Your task to perform on an android device: open app "Google Home" (install if not already installed) Image 0: 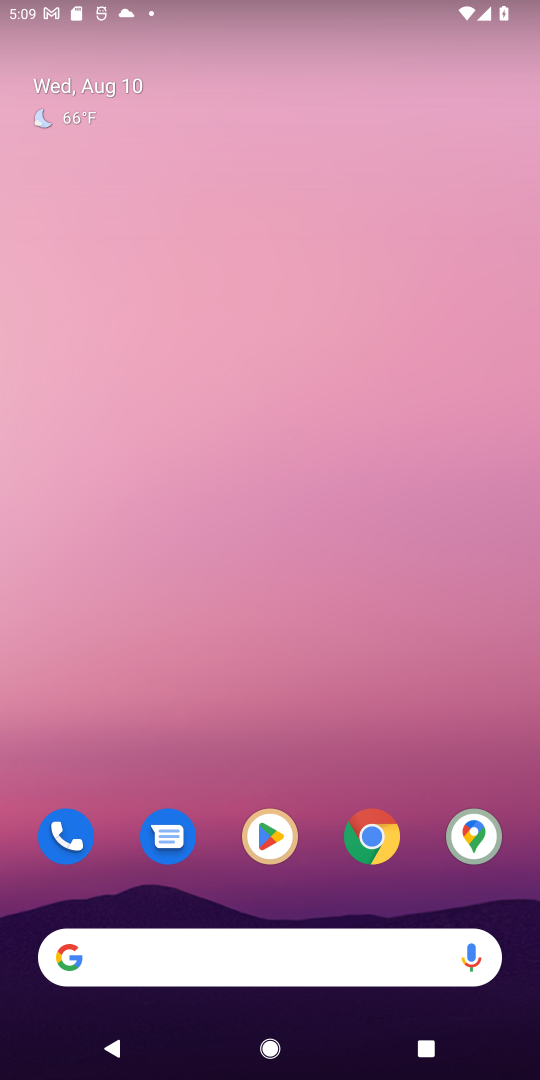
Step 0: drag from (248, 954) to (237, 351)
Your task to perform on an android device: open app "Google Home" (install if not already installed) Image 1: 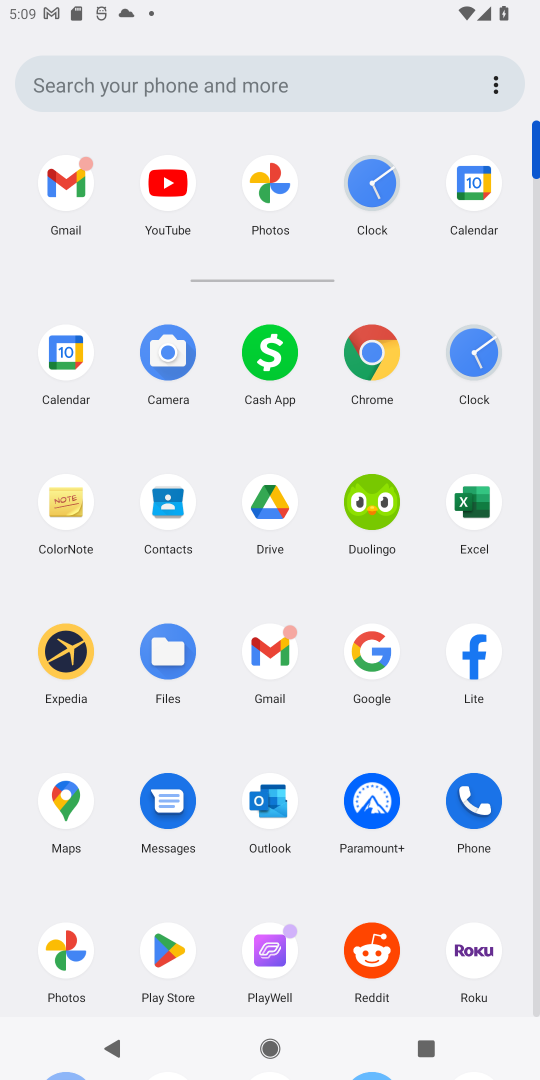
Step 1: click (164, 946)
Your task to perform on an android device: open app "Google Home" (install if not already installed) Image 2: 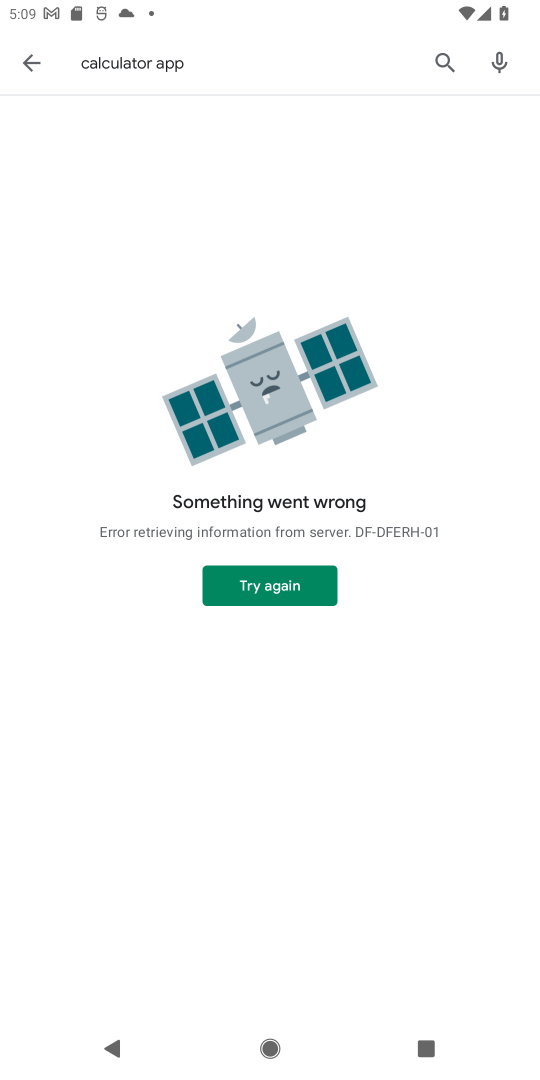
Step 2: click (20, 57)
Your task to perform on an android device: open app "Google Home" (install if not already installed) Image 3: 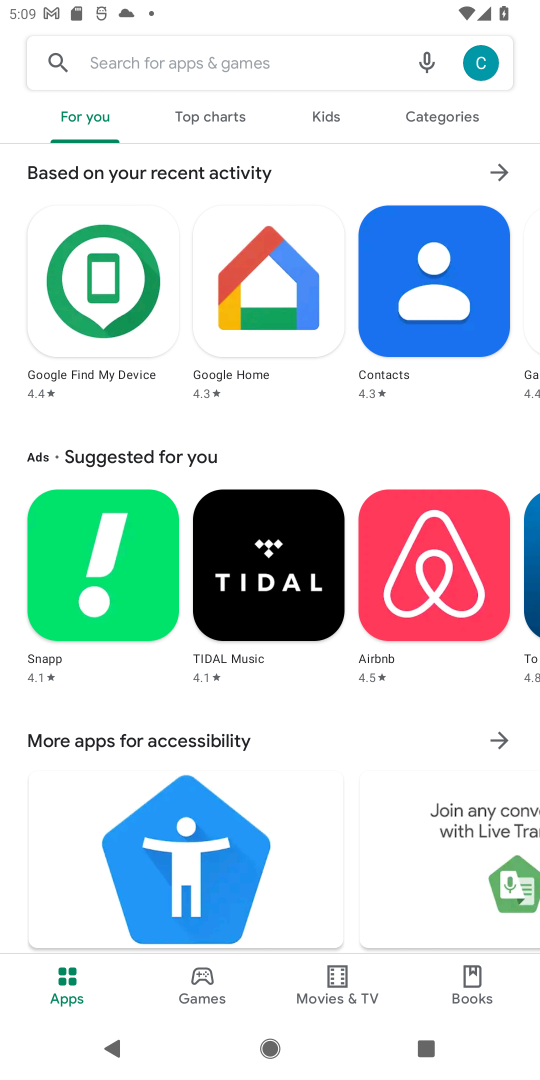
Step 3: click (190, 61)
Your task to perform on an android device: open app "Google Home" (install if not already installed) Image 4: 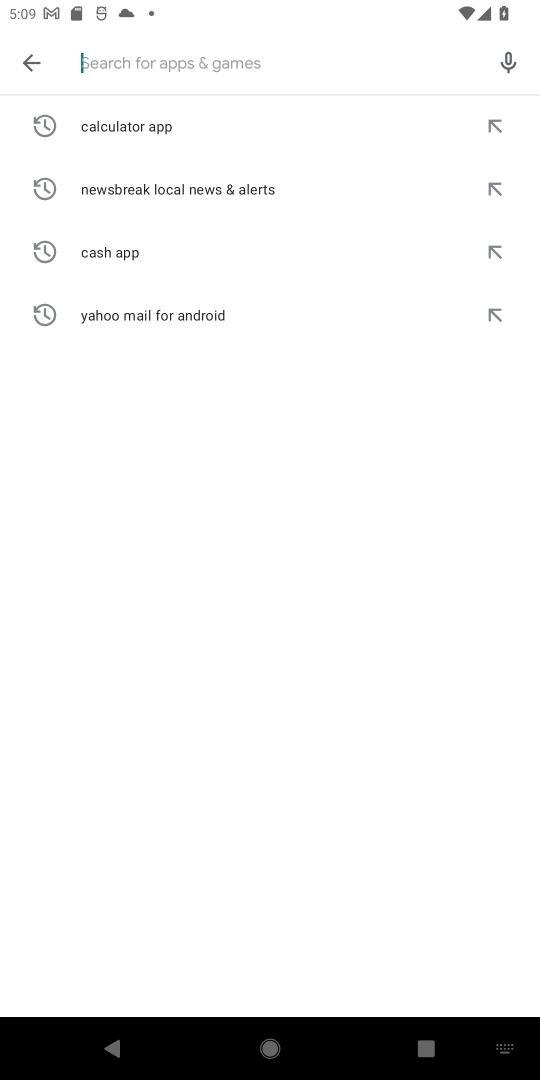
Step 4: type "Google Home "
Your task to perform on an android device: open app "Google Home" (install if not already installed) Image 5: 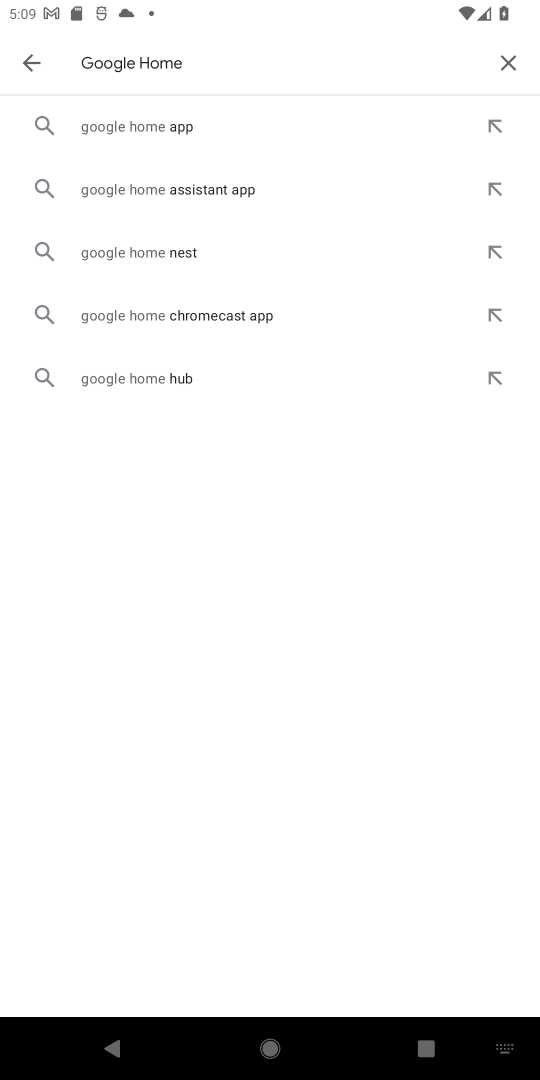
Step 5: click (154, 121)
Your task to perform on an android device: open app "Google Home" (install if not already installed) Image 6: 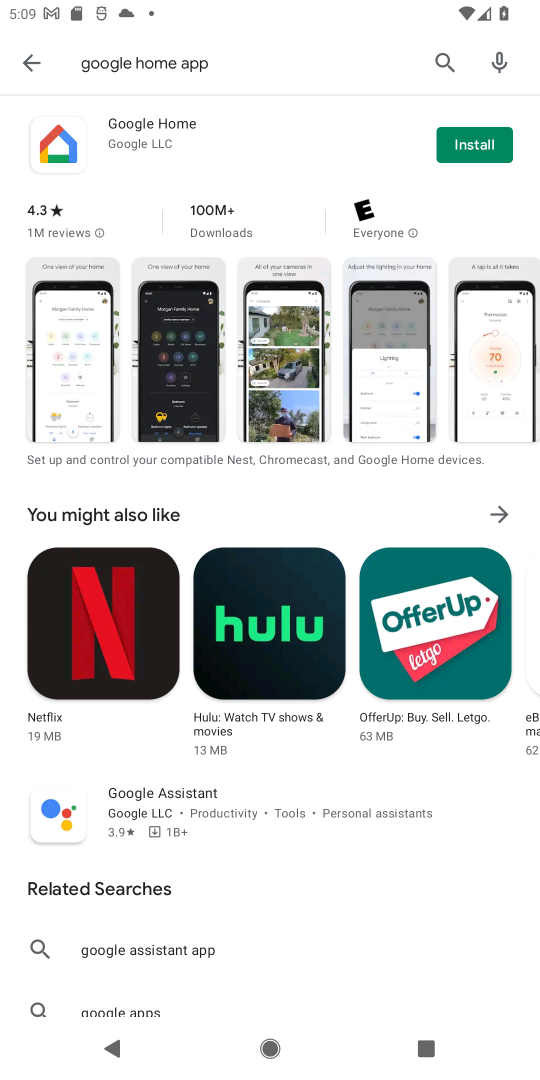
Step 6: click (457, 131)
Your task to perform on an android device: open app "Google Home" (install if not already installed) Image 7: 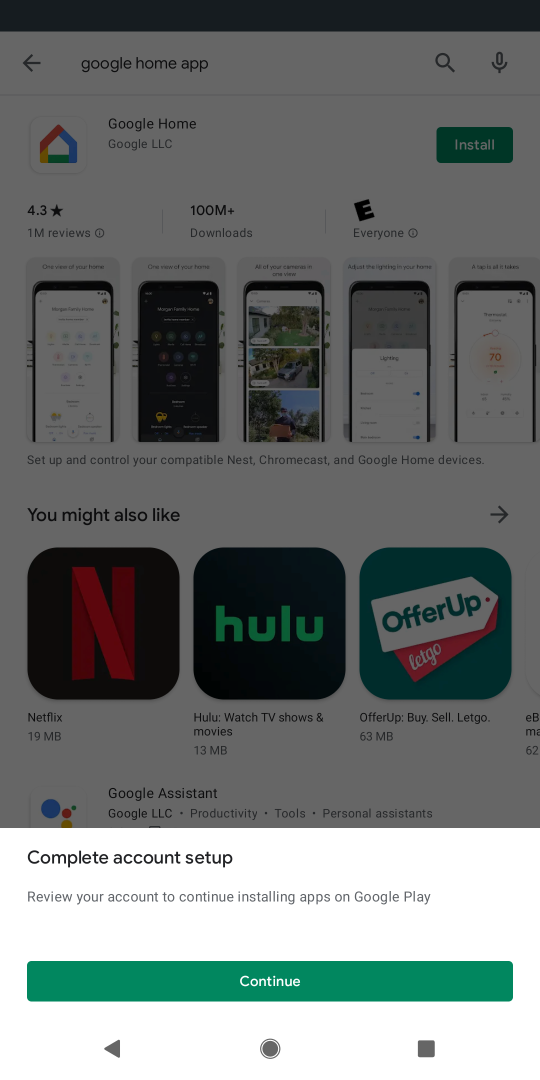
Step 7: click (273, 974)
Your task to perform on an android device: open app "Google Home" (install if not already installed) Image 8: 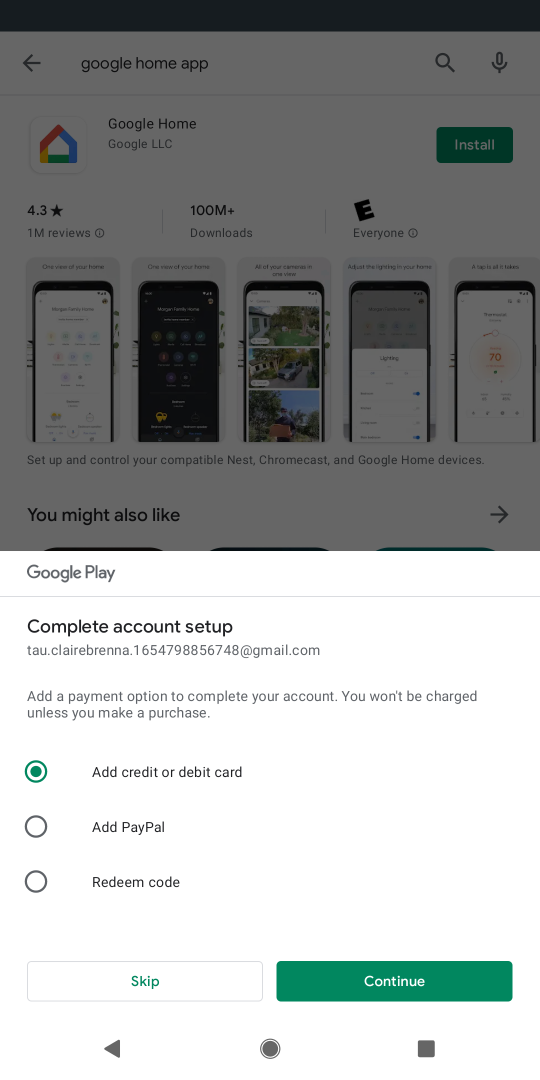
Step 8: task complete